Your task to perform on an android device: change the clock display to analog Image 0: 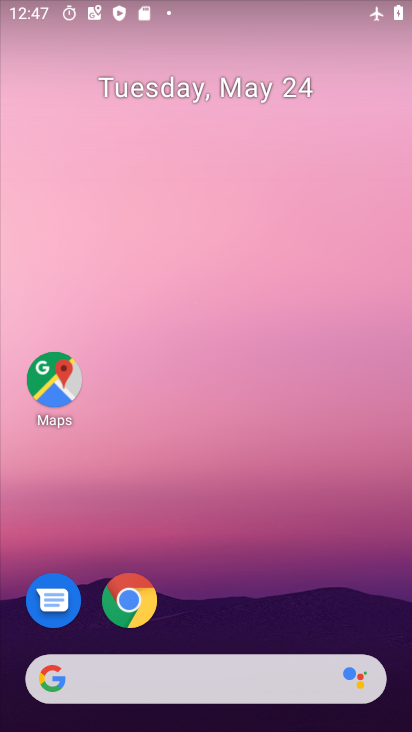
Step 0: drag from (292, 531) to (243, 0)
Your task to perform on an android device: change the clock display to analog Image 1: 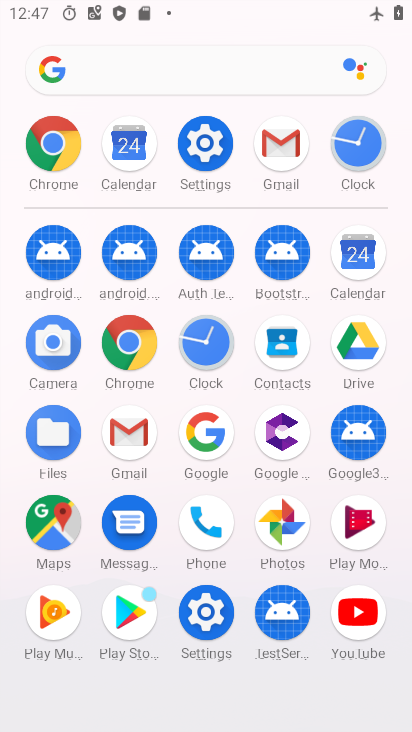
Step 1: click (201, 331)
Your task to perform on an android device: change the clock display to analog Image 2: 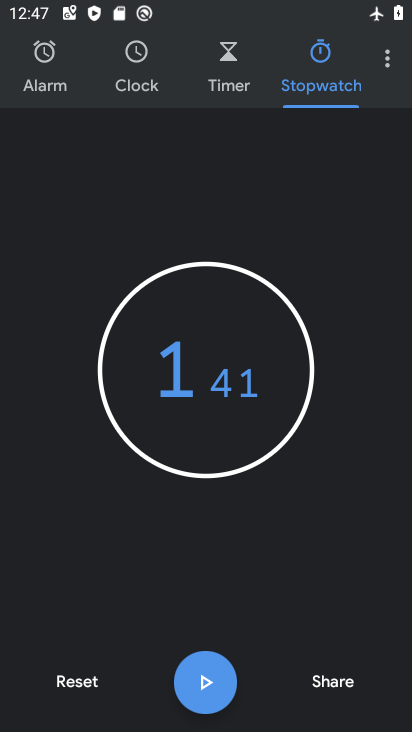
Step 2: click (383, 56)
Your task to perform on an android device: change the clock display to analog Image 3: 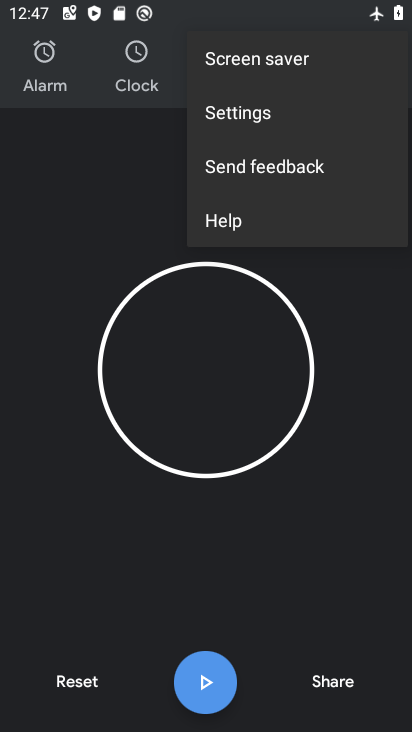
Step 3: click (253, 126)
Your task to perform on an android device: change the clock display to analog Image 4: 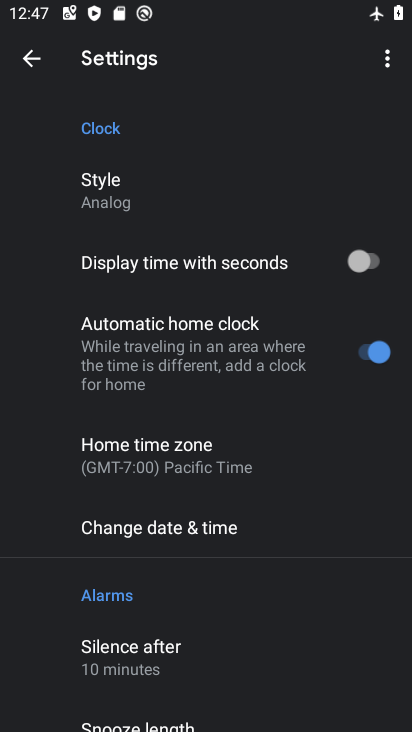
Step 4: click (134, 179)
Your task to perform on an android device: change the clock display to analog Image 5: 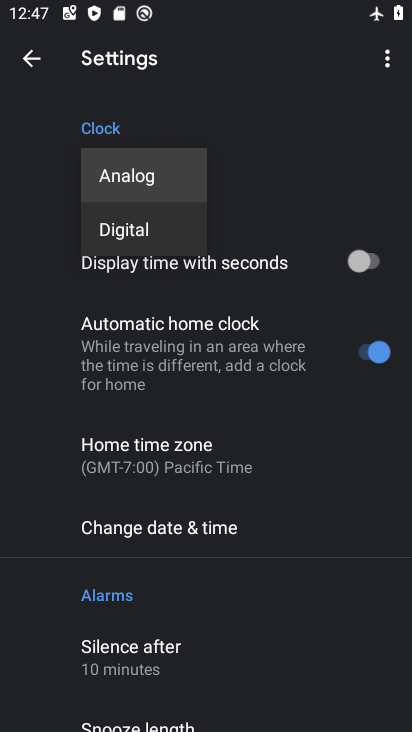
Step 5: task complete